Your task to perform on an android device: stop showing notifications on the lock screen Image 0: 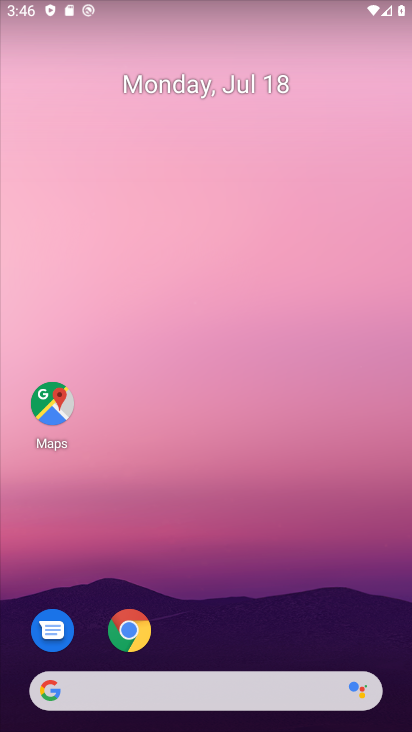
Step 0: drag from (292, 445) to (255, 112)
Your task to perform on an android device: stop showing notifications on the lock screen Image 1: 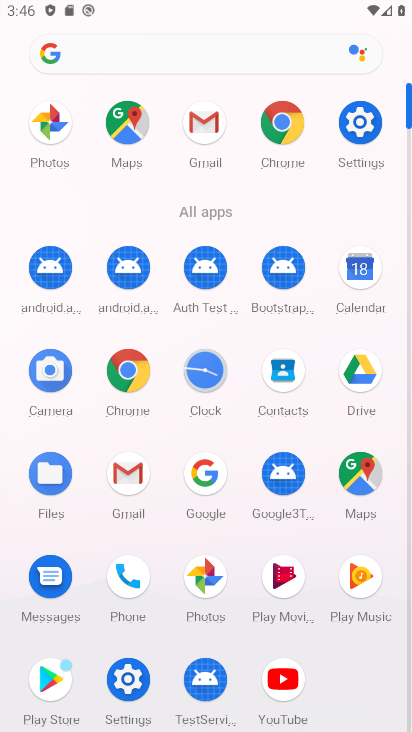
Step 1: click (356, 121)
Your task to perform on an android device: stop showing notifications on the lock screen Image 2: 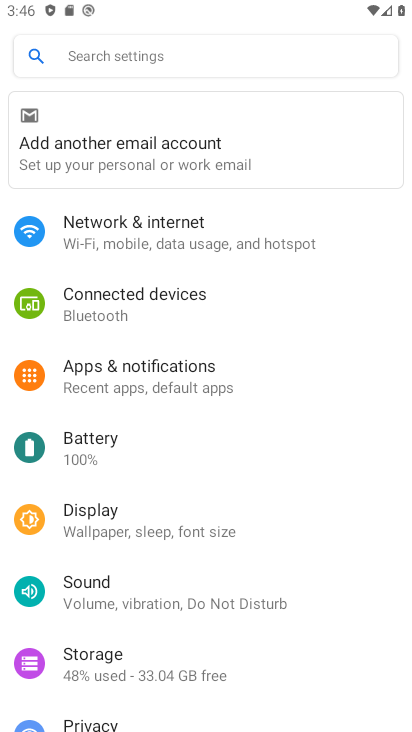
Step 2: click (181, 372)
Your task to perform on an android device: stop showing notifications on the lock screen Image 3: 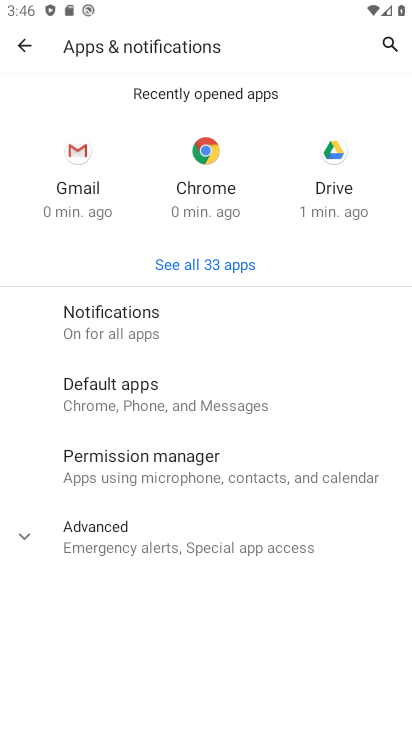
Step 3: click (145, 329)
Your task to perform on an android device: stop showing notifications on the lock screen Image 4: 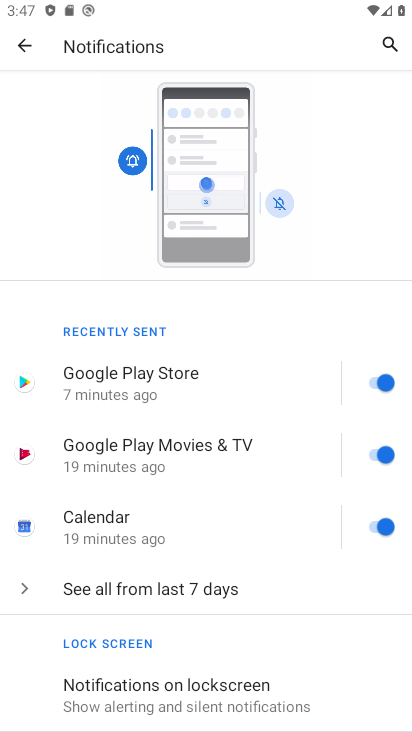
Step 4: click (235, 688)
Your task to perform on an android device: stop showing notifications on the lock screen Image 5: 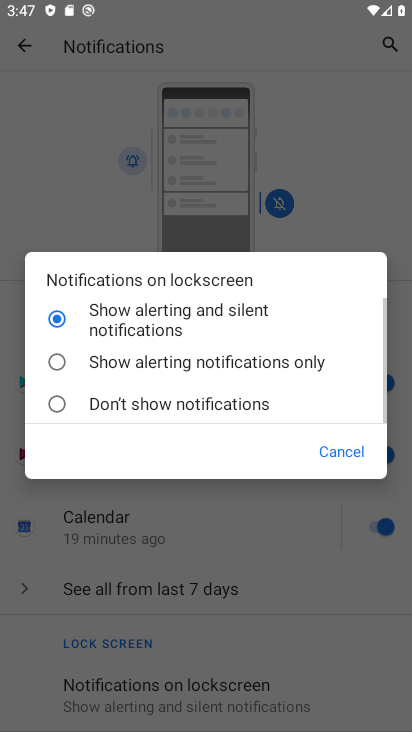
Step 5: click (184, 402)
Your task to perform on an android device: stop showing notifications on the lock screen Image 6: 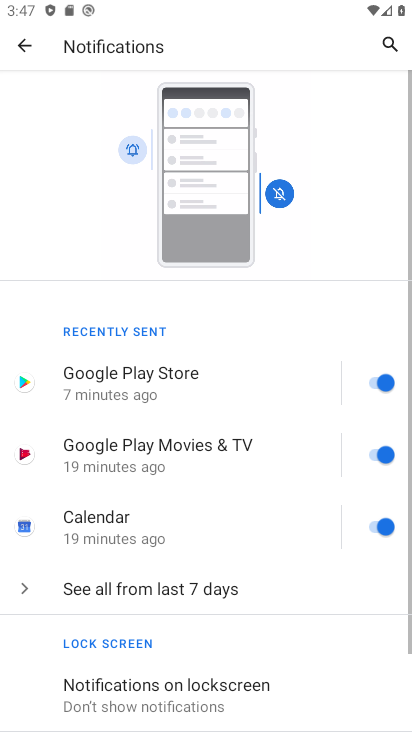
Step 6: task complete